Your task to perform on an android device: Go to Google Image 0: 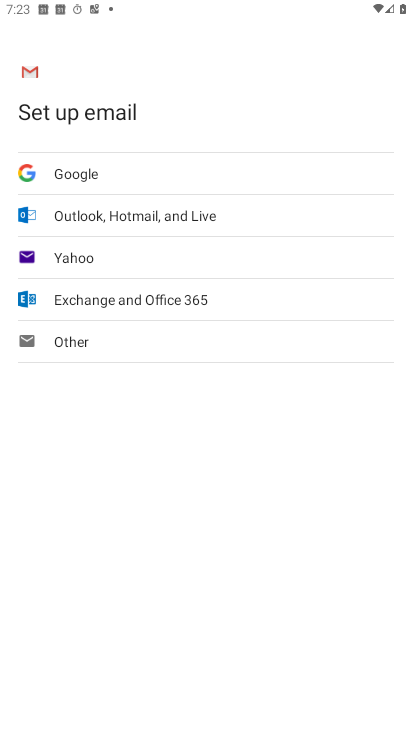
Step 0: press home button
Your task to perform on an android device: Go to Google Image 1: 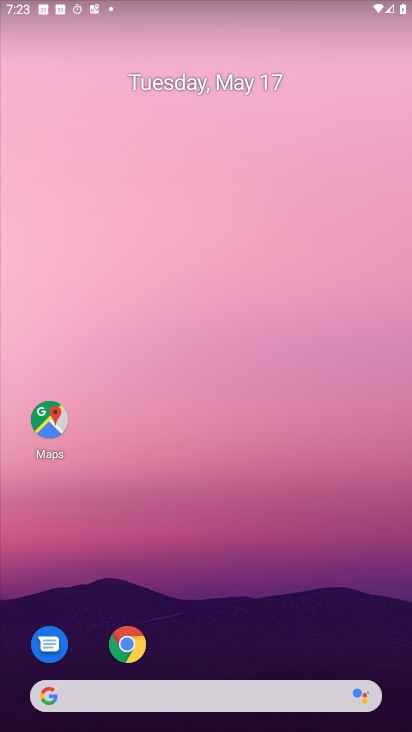
Step 1: drag from (354, 628) to (266, 5)
Your task to perform on an android device: Go to Google Image 2: 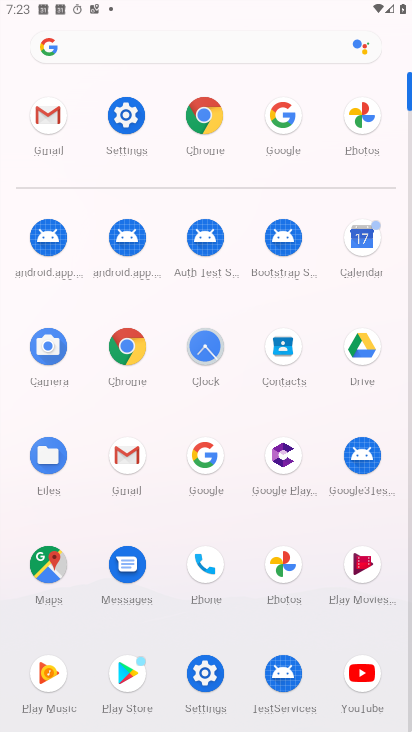
Step 2: click (281, 121)
Your task to perform on an android device: Go to Google Image 3: 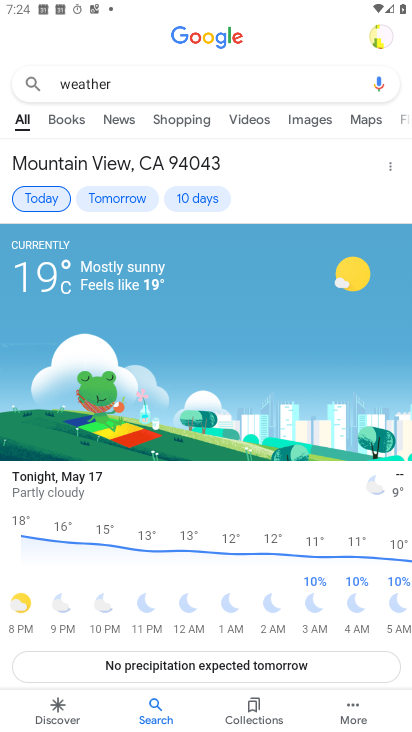
Step 3: task complete